Your task to perform on an android device: Open battery settings Image 0: 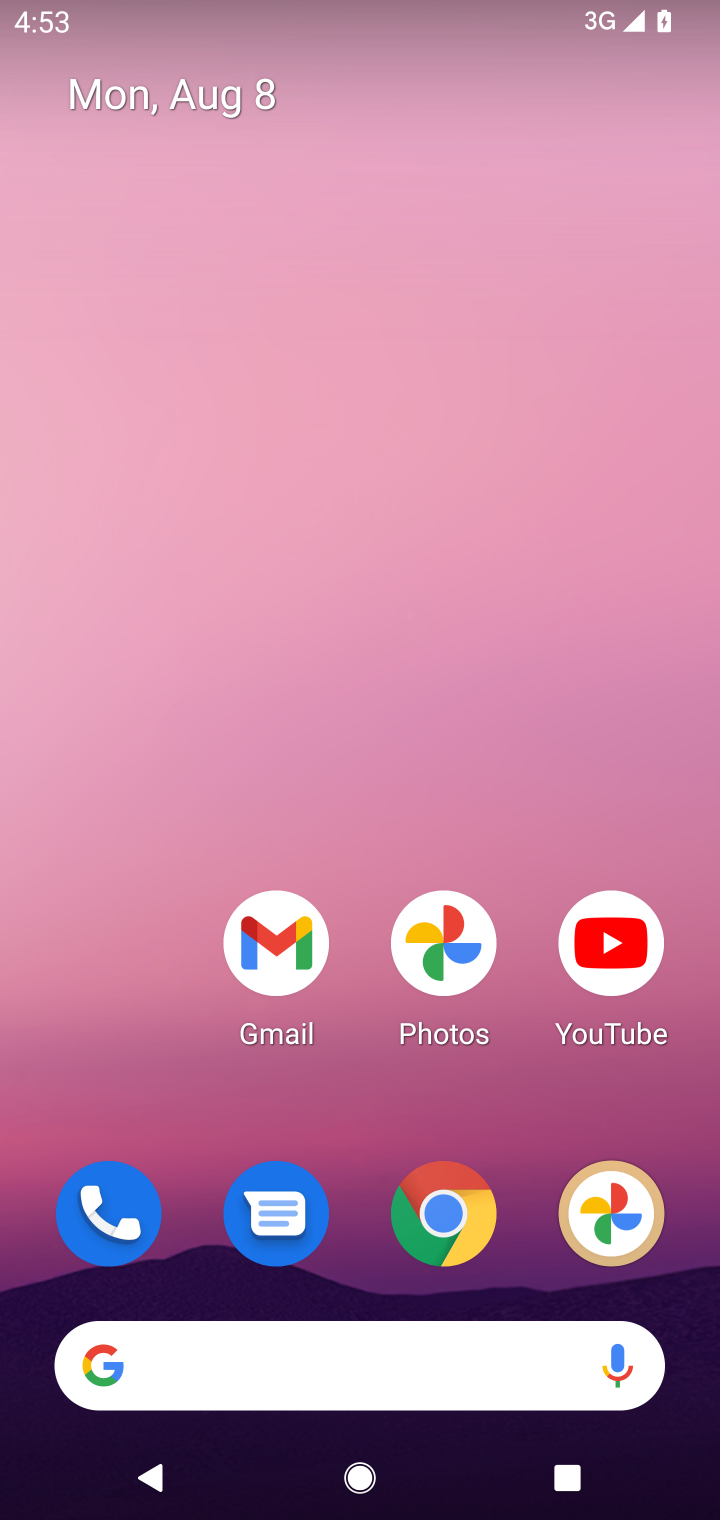
Step 0: drag from (345, 1113) to (354, 129)
Your task to perform on an android device: Open battery settings Image 1: 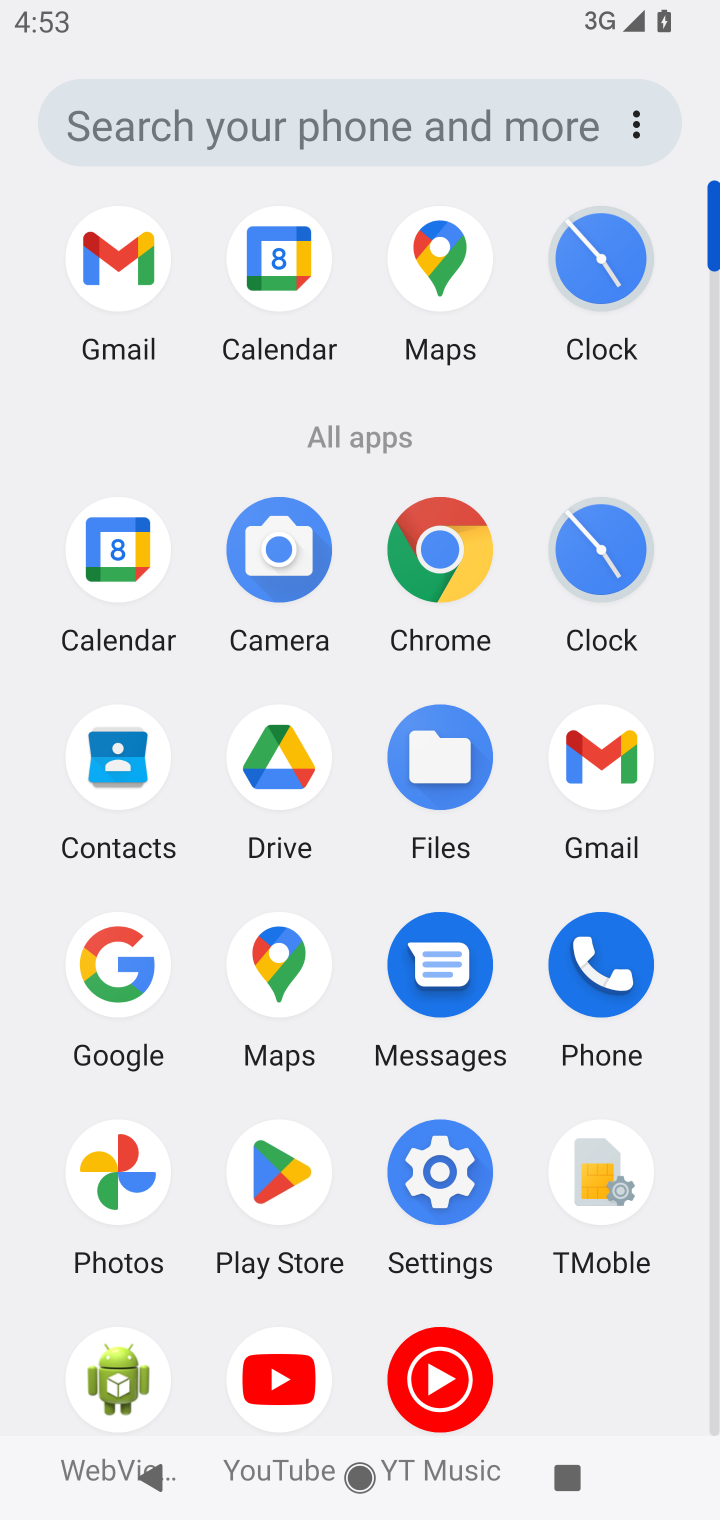
Step 1: click (414, 1177)
Your task to perform on an android device: Open battery settings Image 2: 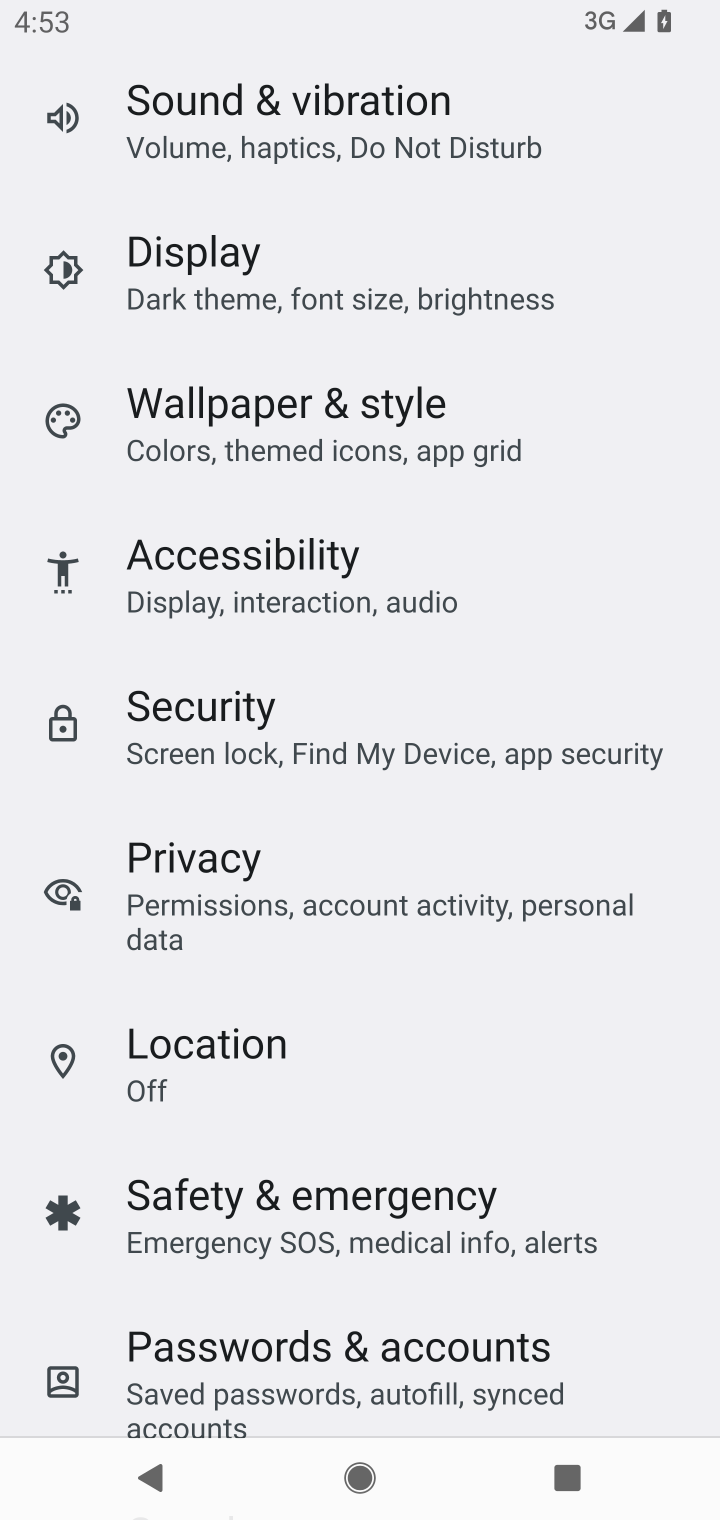
Step 2: drag from (412, 230) to (480, 963)
Your task to perform on an android device: Open battery settings Image 3: 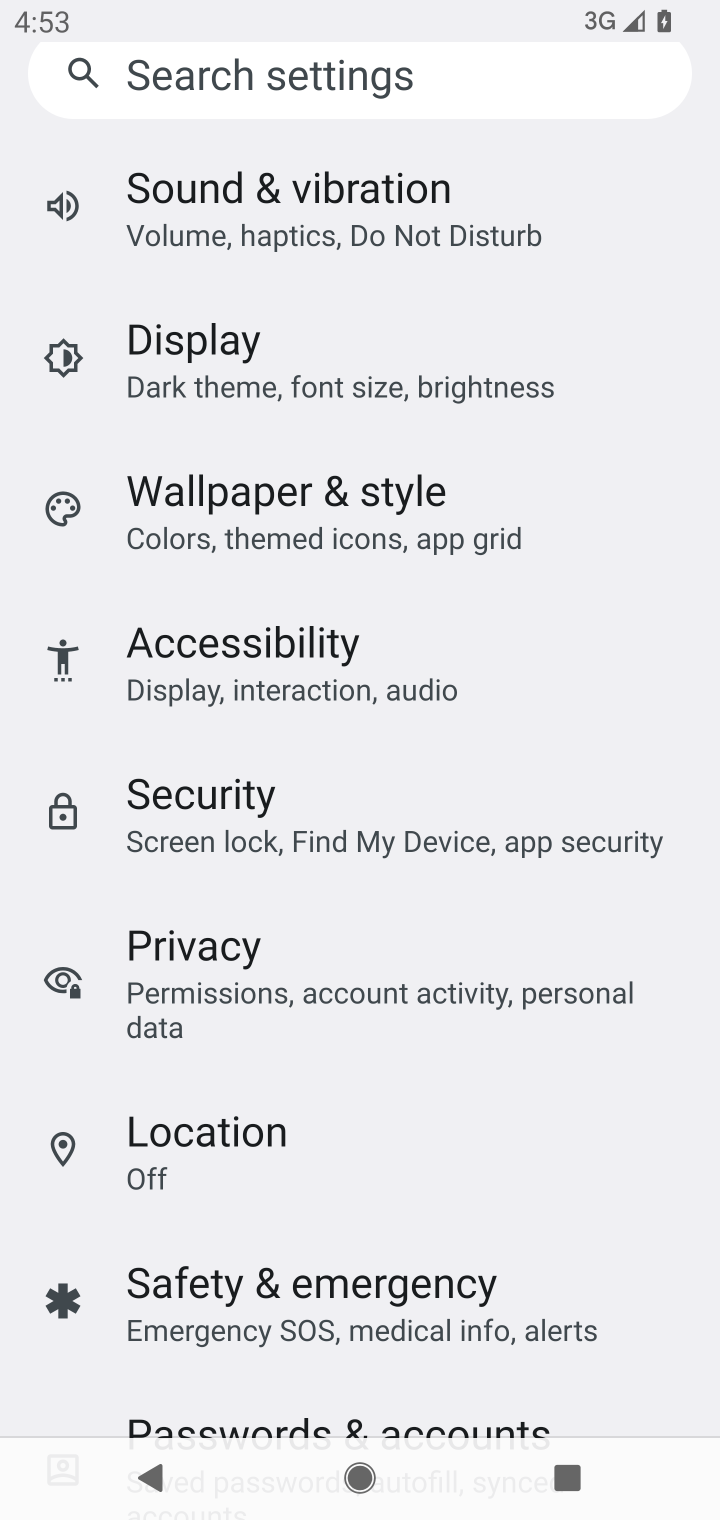
Step 3: drag from (492, 225) to (571, 1371)
Your task to perform on an android device: Open battery settings Image 4: 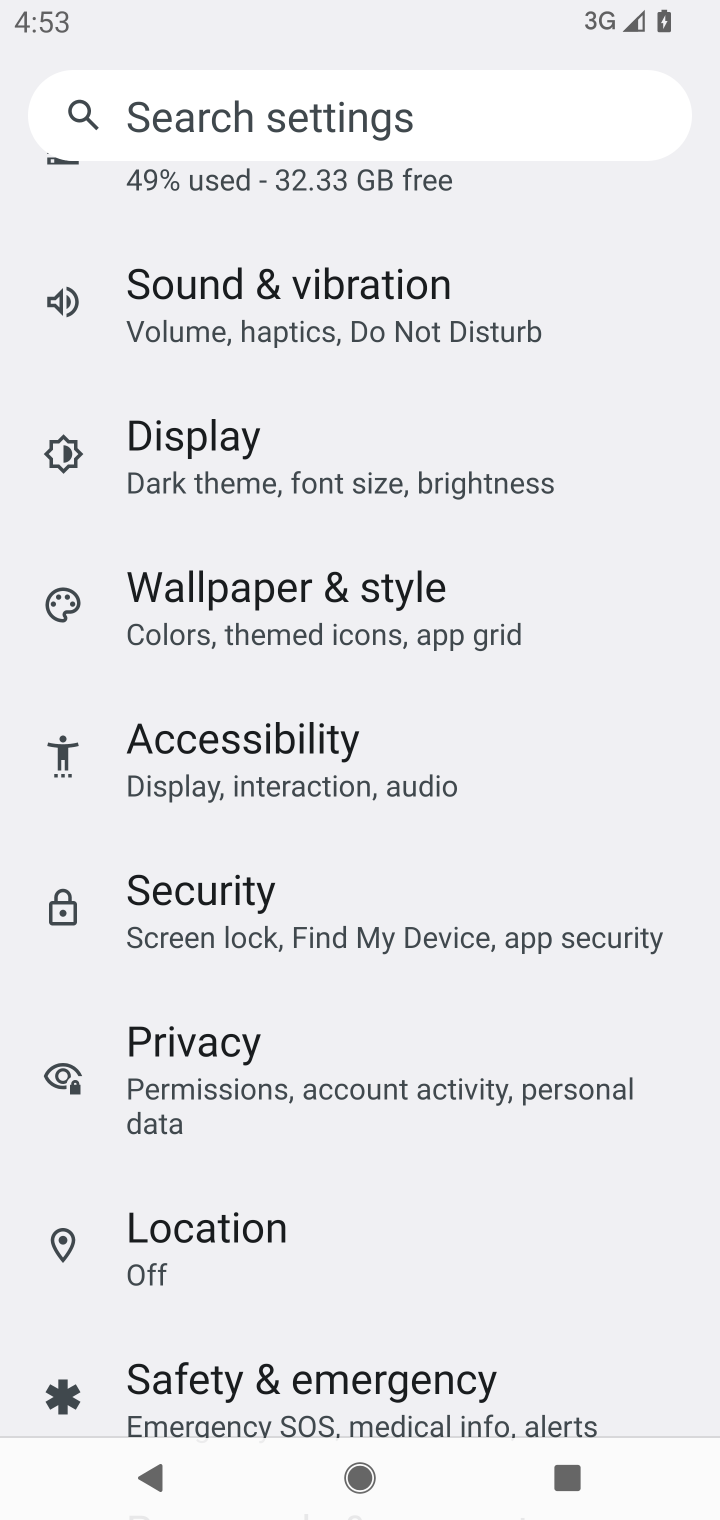
Step 4: drag from (532, 550) to (634, 1133)
Your task to perform on an android device: Open battery settings Image 5: 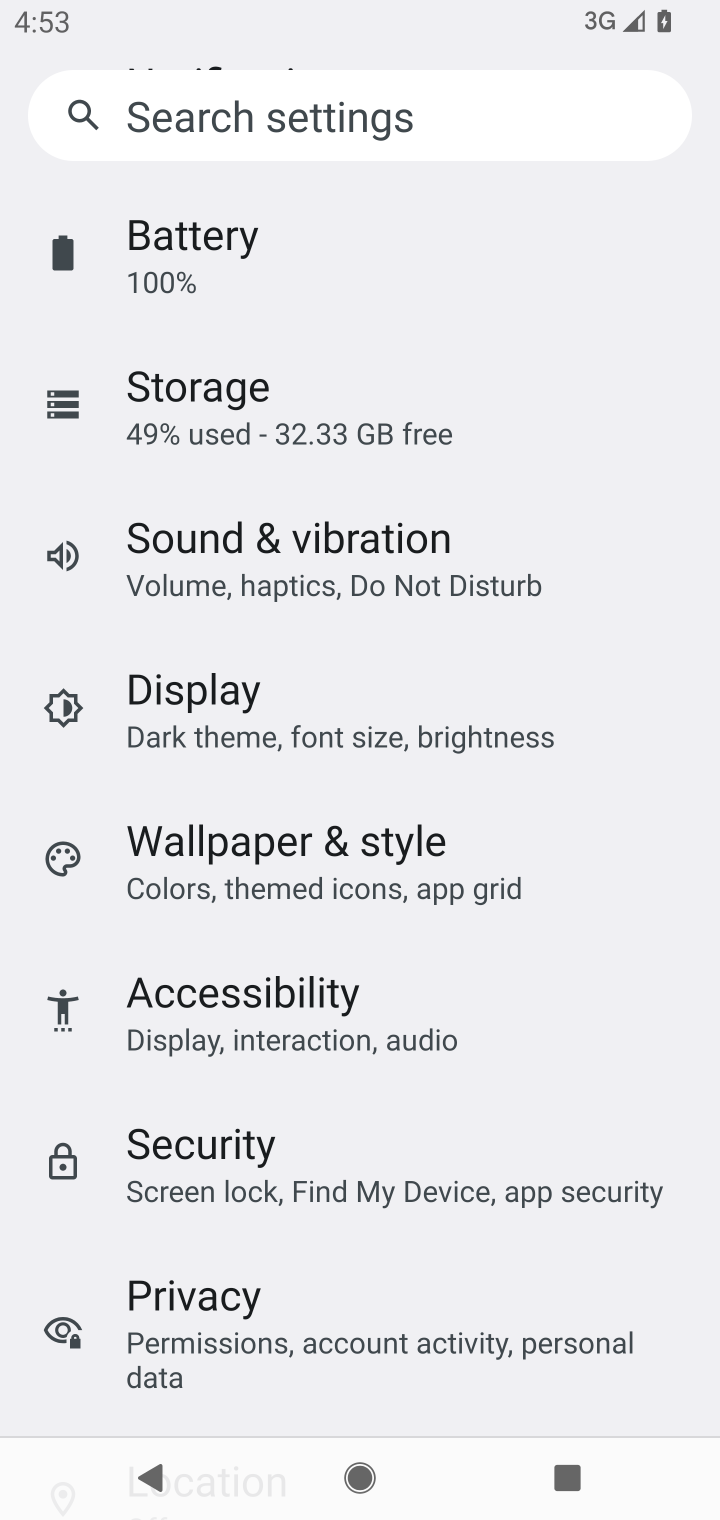
Step 5: click (437, 245)
Your task to perform on an android device: Open battery settings Image 6: 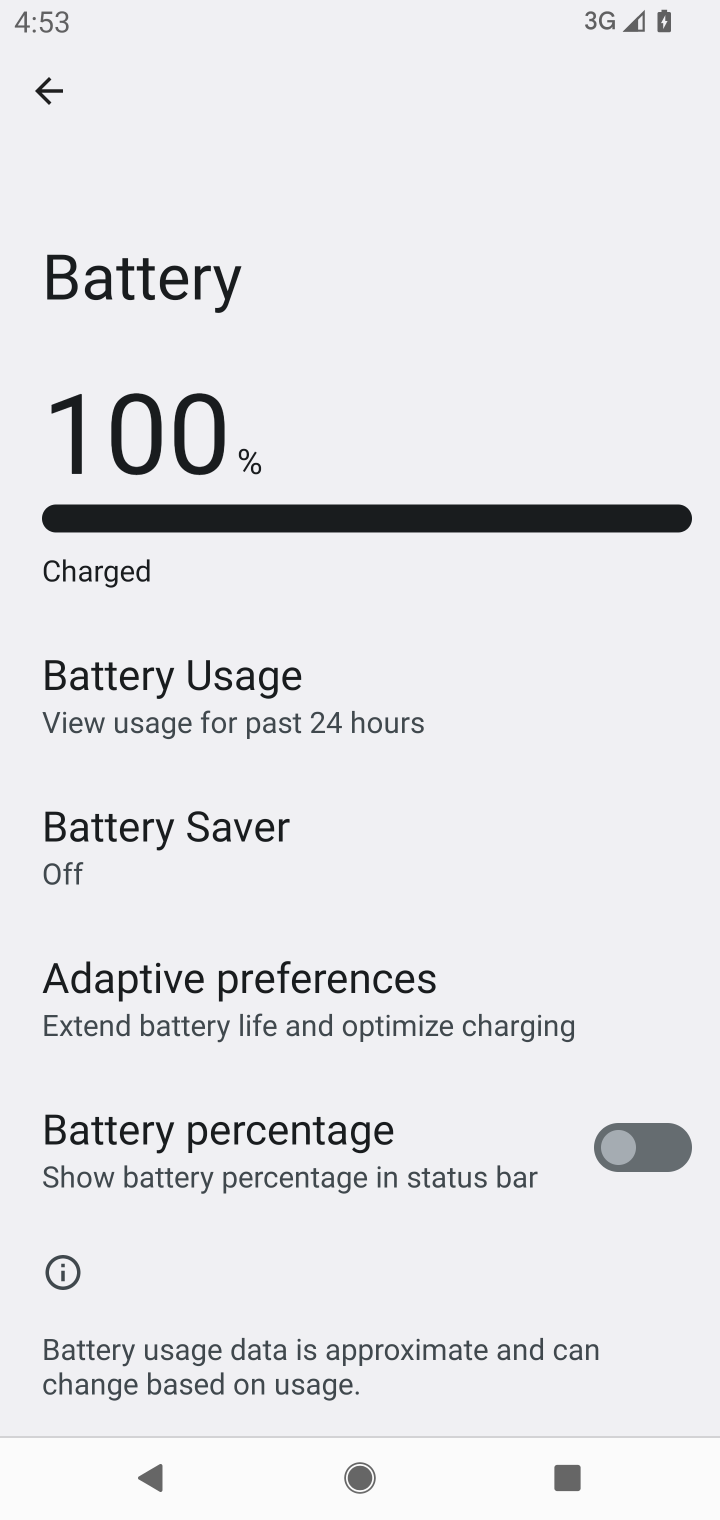
Step 6: task complete